Your task to perform on an android device: turn off sleep mode Image 0: 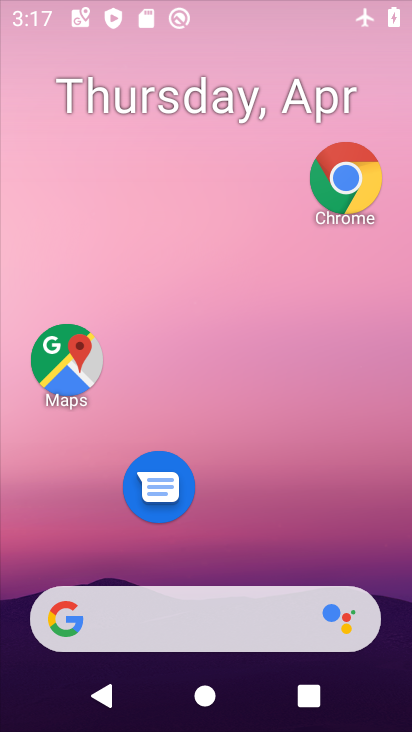
Step 0: drag from (296, 521) to (288, 252)
Your task to perform on an android device: turn off sleep mode Image 1: 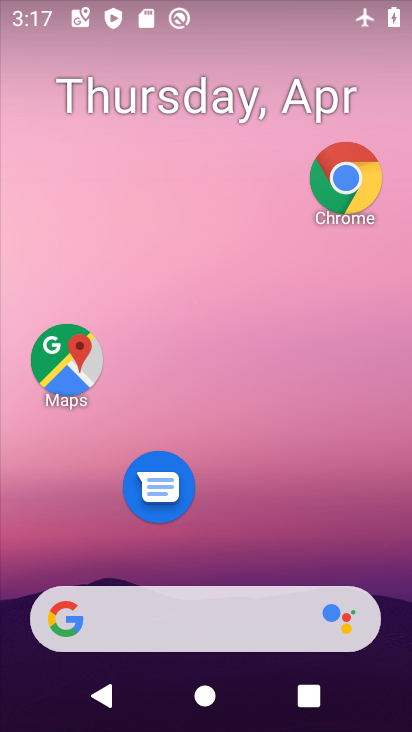
Step 1: drag from (274, 538) to (291, 30)
Your task to perform on an android device: turn off sleep mode Image 2: 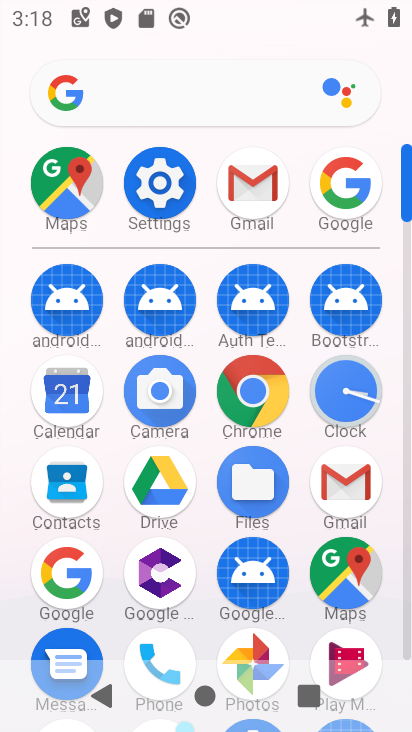
Step 2: click (182, 194)
Your task to perform on an android device: turn off sleep mode Image 3: 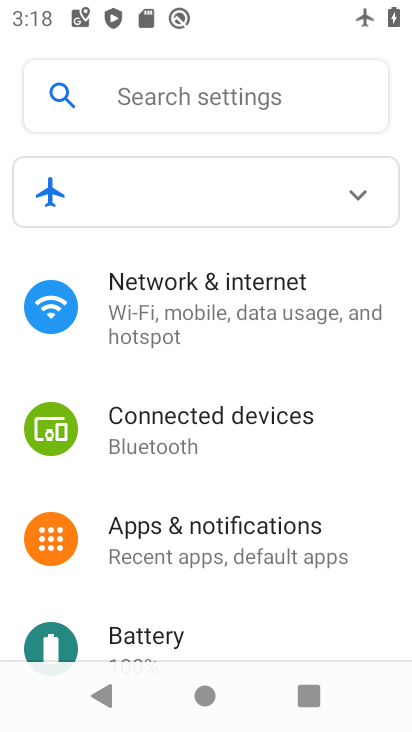
Step 3: drag from (261, 543) to (255, 355)
Your task to perform on an android device: turn off sleep mode Image 4: 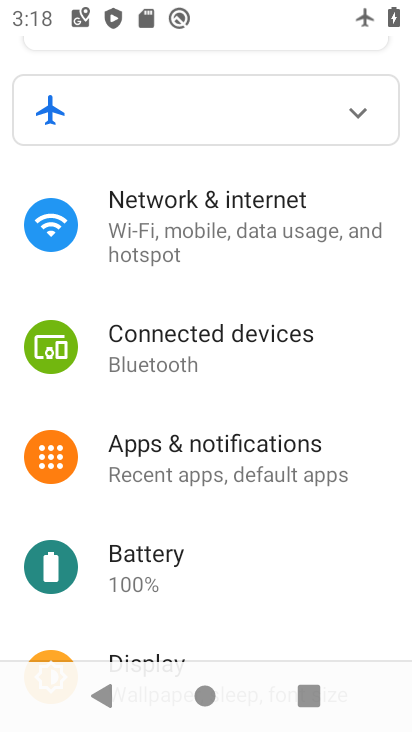
Step 4: drag from (269, 532) to (266, 289)
Your task to perform on an android device: turn off sleep mode Image 5: 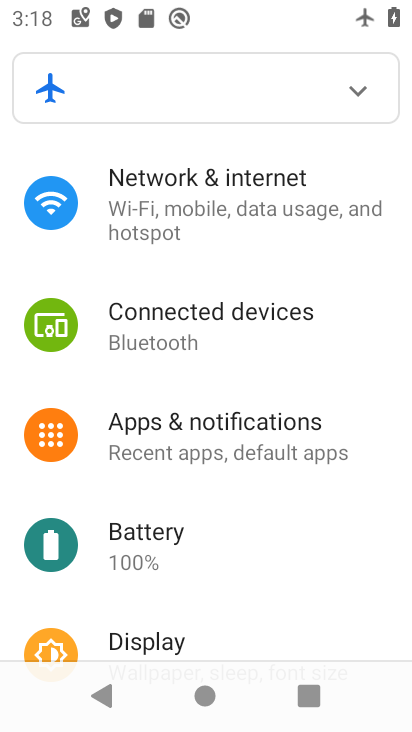
Step 5: drag from (290, 537) to (285, 63)
Your task to perform on an android device: turn off sleep mode Image 6: 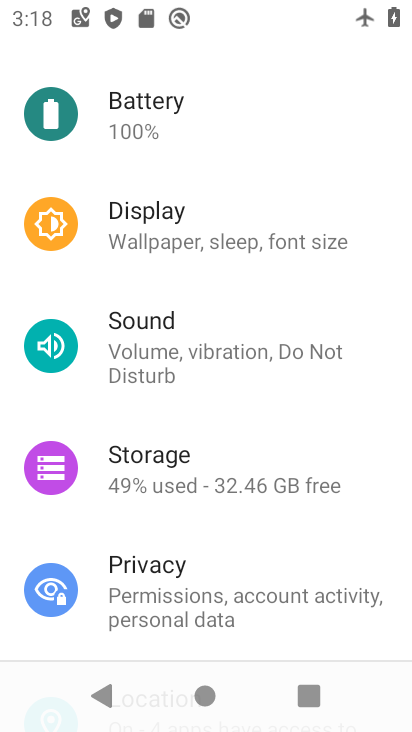
Step 6: click (259, 237)
Your task to perform on an android device: turn off sleep mode Image 7: 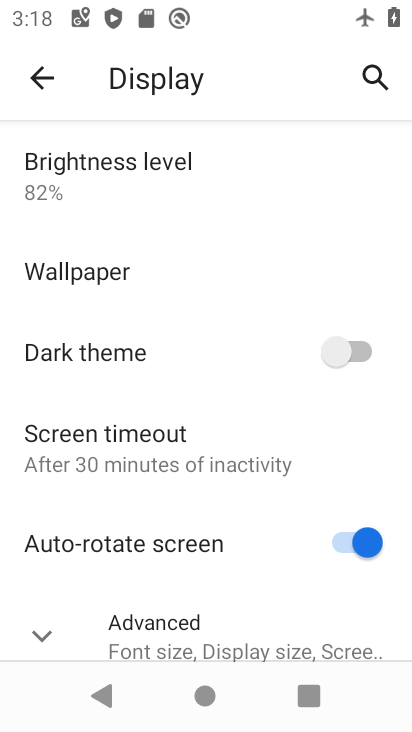
Step 7: click (254, 626)
Your task to perform on an android device: turn off sleep mode Image 8: 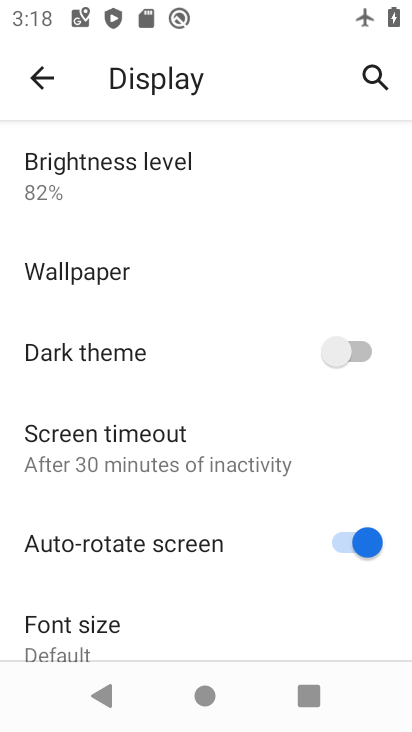
Step 8: task complete